Your task to perform on an android device: Open CNN.com Image 0: 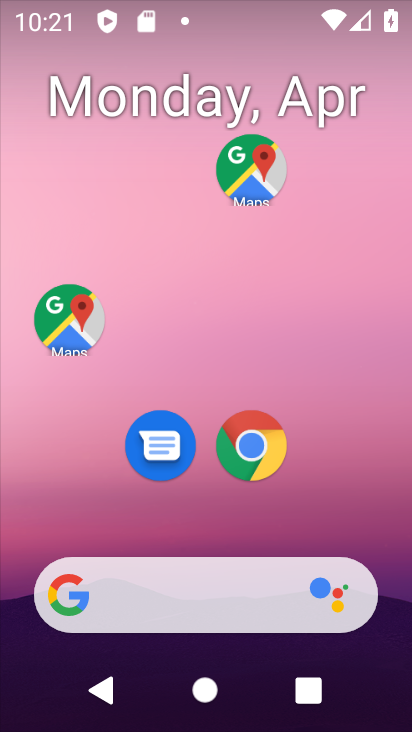
Step 0: click (252, 462)
Your task to perform on an android device: Open CNN.com Image 1: 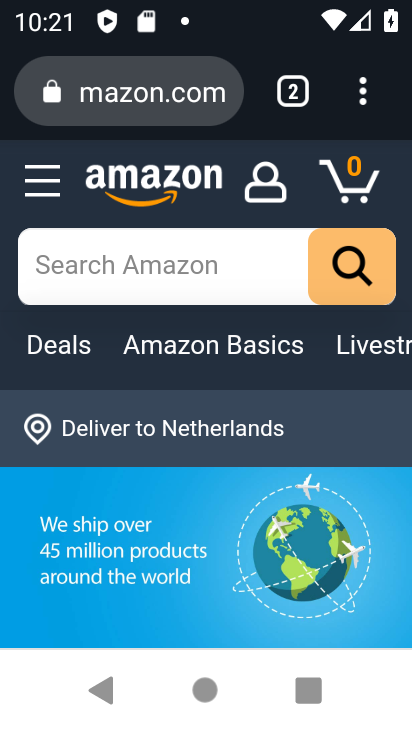
Step 1: click (301, 97)
Your task to perform on an android device: Open CNN.com Image 2: 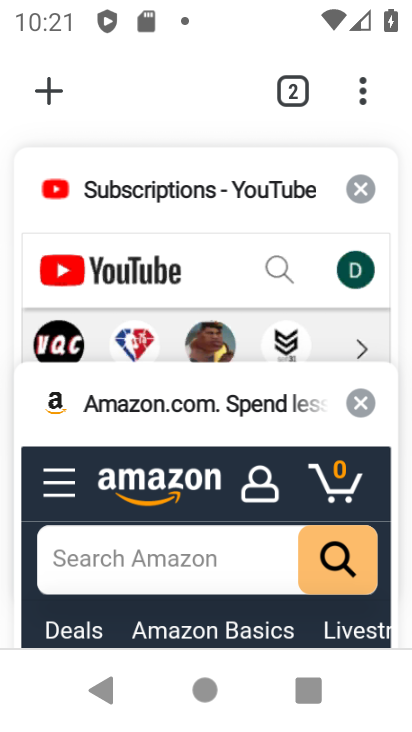
Step 2: click (49, 94)
Your task to perform on an android device: Open CNN.com Image 3: 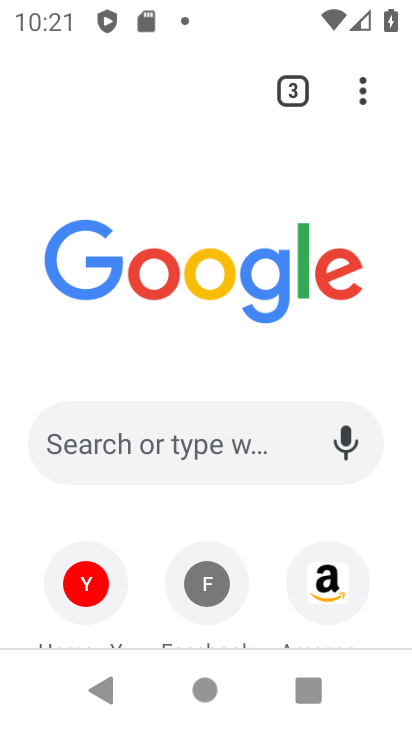
Step 3: click (255, 448)
Your task to perform on an android device: Open CNN.com Image 4: 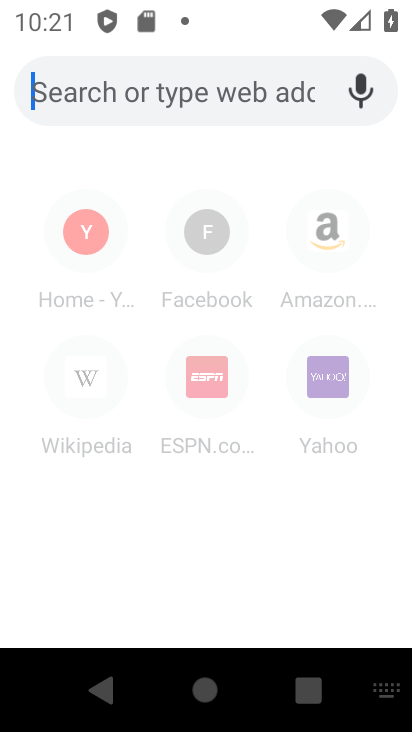
Step 4: type "CNN.com"
Your task to perform on an android device: Open CNN.com Image 5: 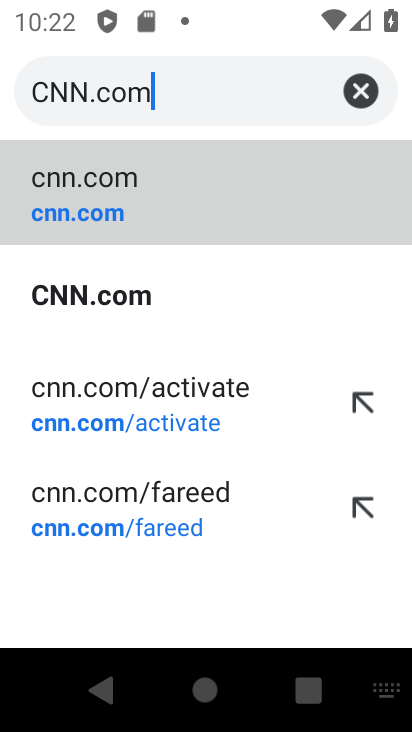
Step 5: click (129, 202)
Your task to perform on an android device: Open CNN.com Image 6: 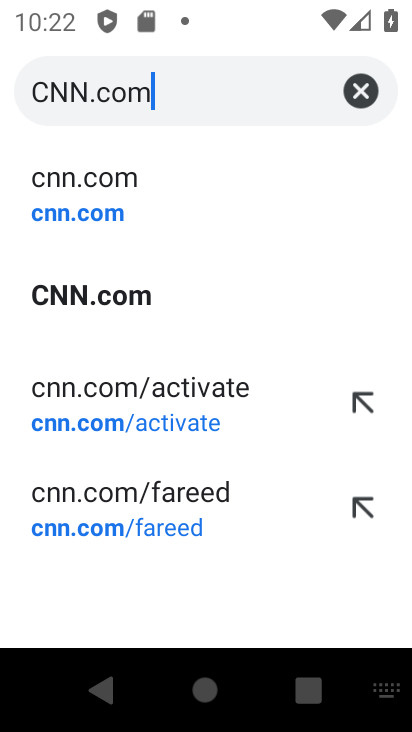
Step 6: click (113, 201)
Your task to perform on an android device: Open CNN.com Image 7: 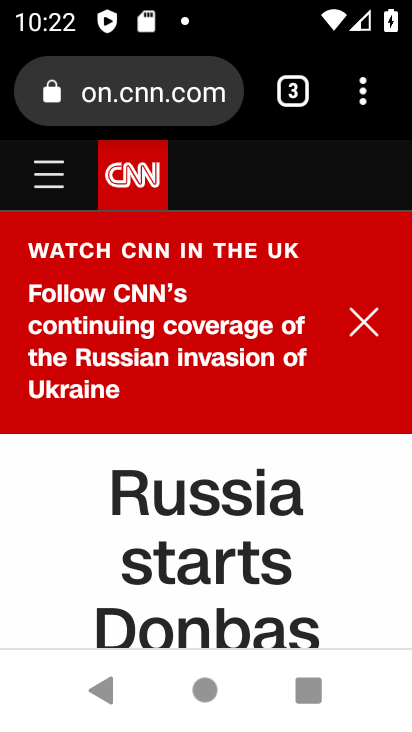
Step 7: task complete